Your task to perform on an android device: open a new tab in the chrome app Image 0: 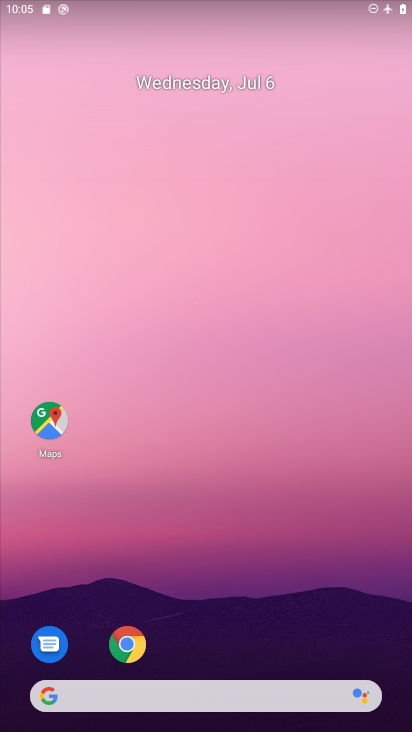
Step 0: drag from (227, 633) to (218, 165)
Your task to perform on an android device: open a new tab in the chrome app Image 1: 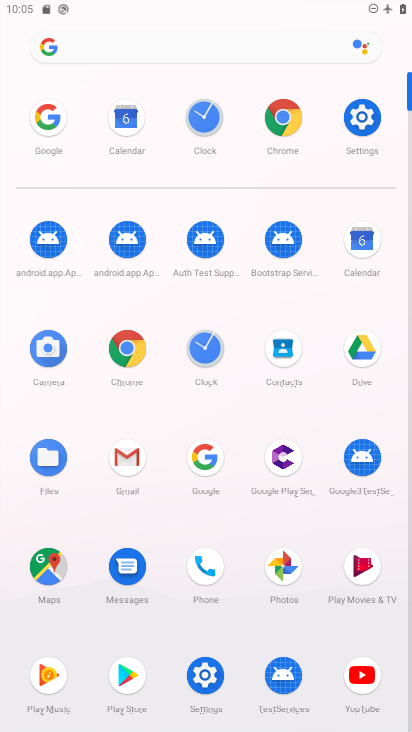
Step 1: click (298, 127)
Your task to perform on an android device: open a new tab in the chrome app Image 2: 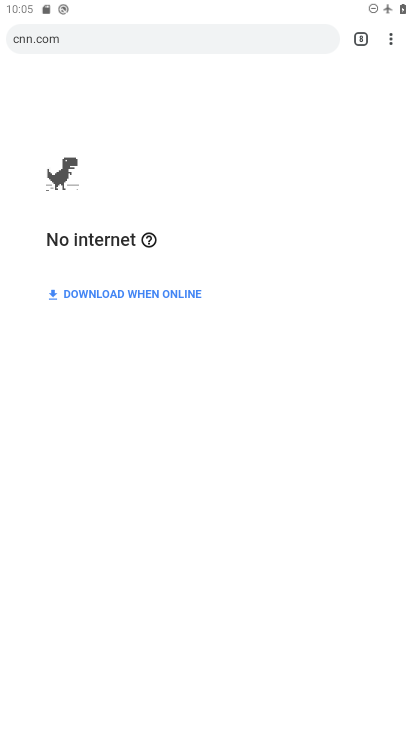
Step 2: click (355, 36)
Your task to perform on an android device: open a new tab in the chrome app Image 3: 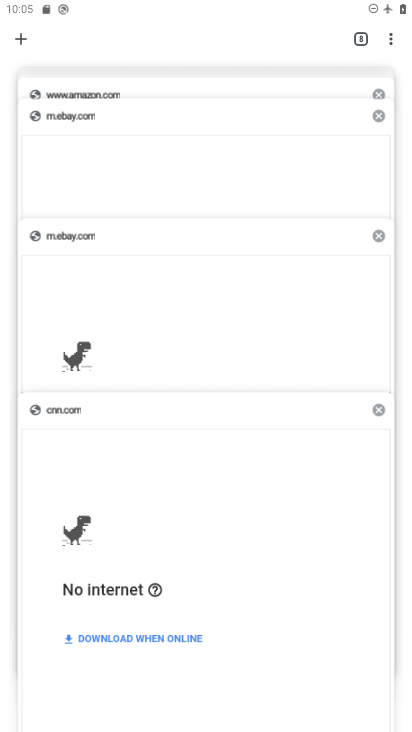
Step 3: click (17, 38)
Your task to perform on an android device: open a new tab in the chrome app Image 4: 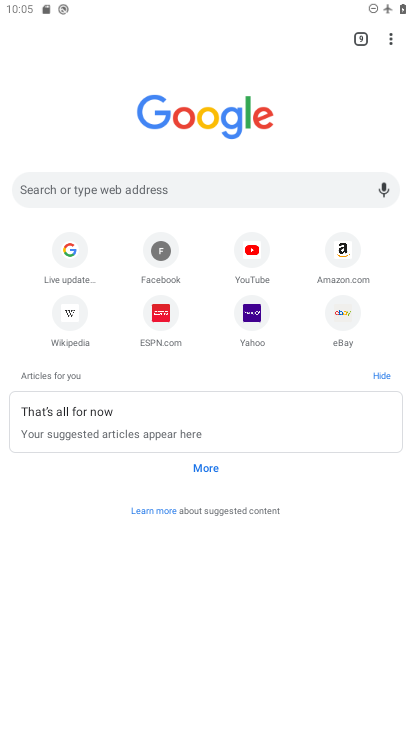
Step 4: task complete